Your task to perform on an android device: Search for sushi restaurants on Maps Image 0: 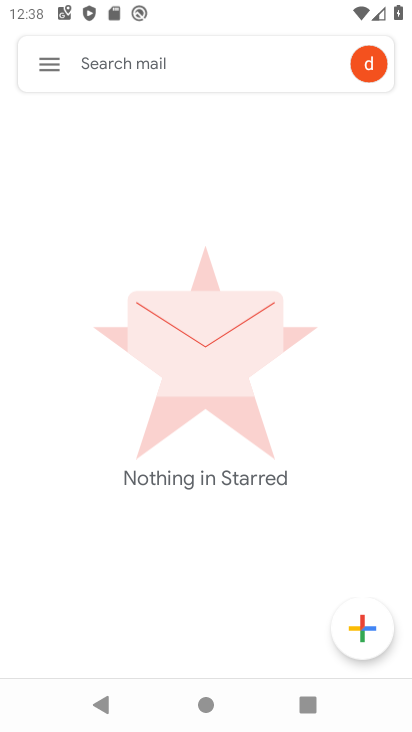
Step 0: press home button
Your task to perform on an android device: Search for sushi restaurants on Maps Image 1: 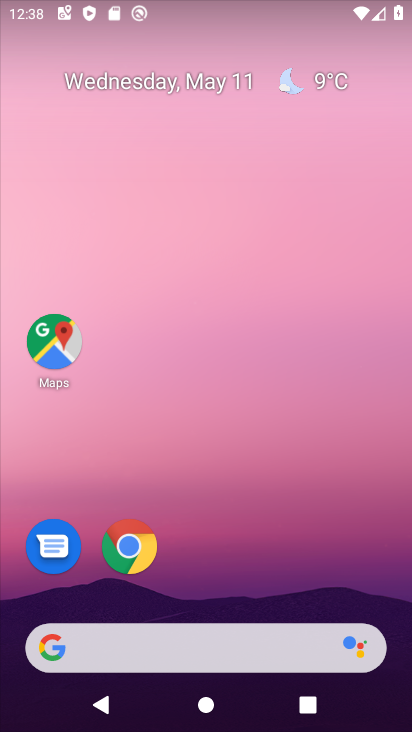
Step 1: drag from (258, 437) to (244, 49)
Your task to perform on an android device: Search for sushi restaurants on Maps Image 2: 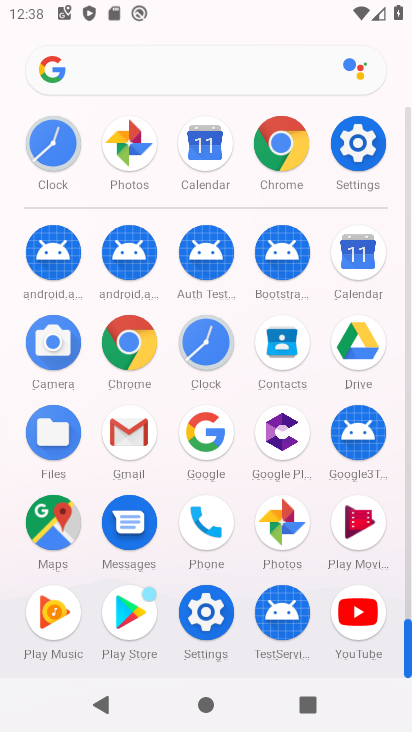
Step 2: drag from (315, 589) to (314, 311)
Your task to perform on an android device: Search for sushi restaurants on Maps Image 3: 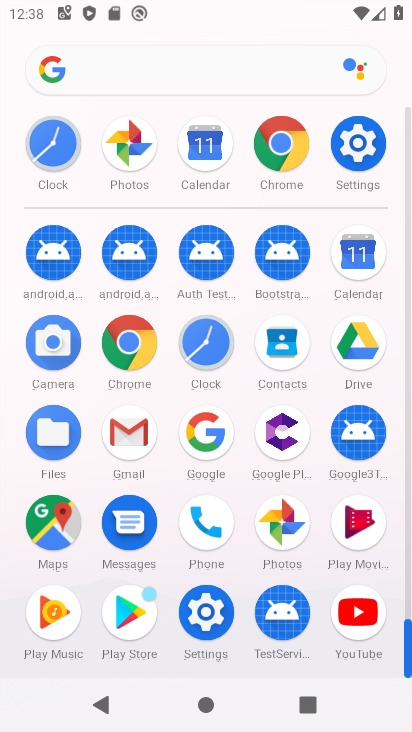
Step 3: click (75, 512)
Your task to perform on an android device: Search for sushi restaurants on Maps Image 4: 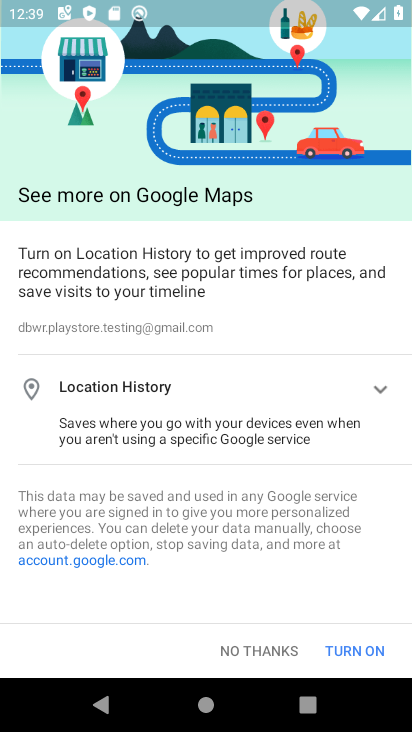
Step 4: click (272, 643)
Your task to perform on an android device: Search for sushi restaurants on Maps Image 5: 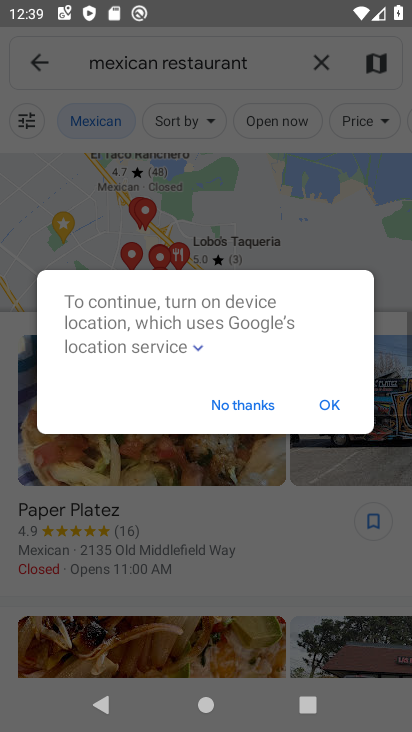
Step 5: click (245, 409)
Your task to perform on an android device: Search for sushi restaurants on Maps Image 6: 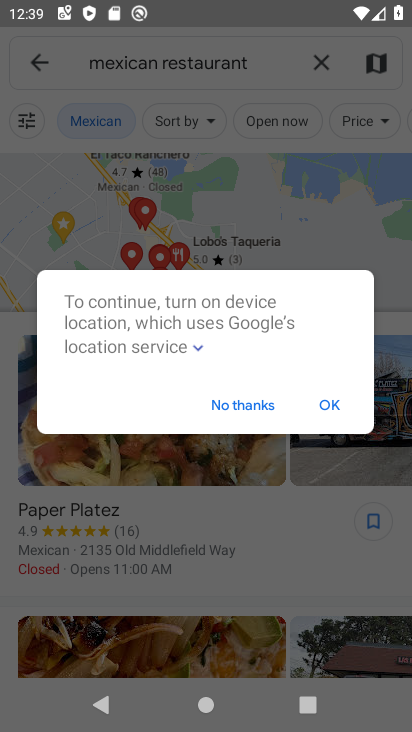
Step 6: click (239, 403)
Your task to perform on an android device: Search for sushi restaurants on Maps Image 7: 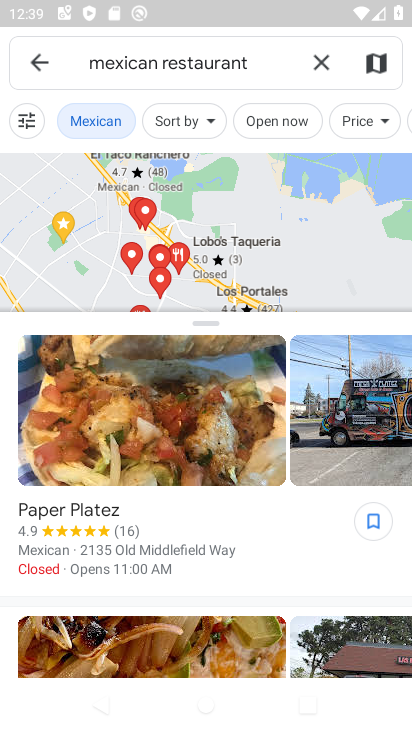
Step 7: click (319, 57)
Your task to perform on an android device: Search for sushi restaurants on Maps Image 8: 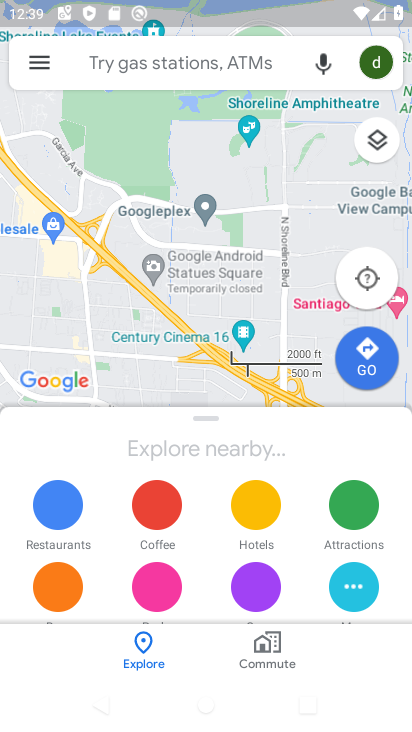
Step 8: click (255, 62)
Your task to perform on an android device: Search for sushi restaurants on Maps Image 9: 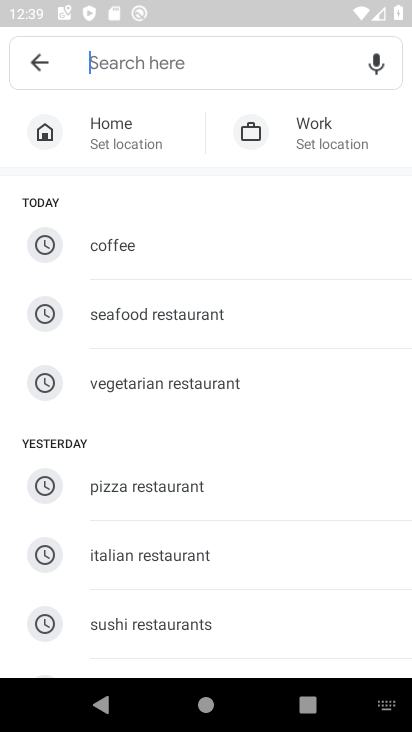
Step 9: click (204, 628)
Your task to perform on an android device: Search for sushi restaurants on Maps Image 10: 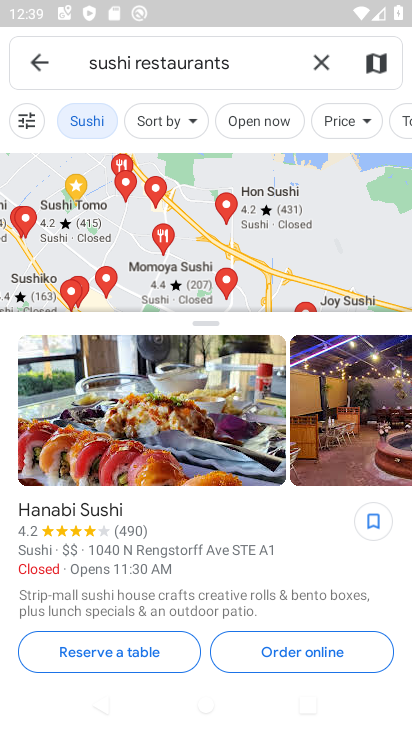
Step 10: task complete